Your task to perform on an android device: Open settings on Google Maps Image 0: 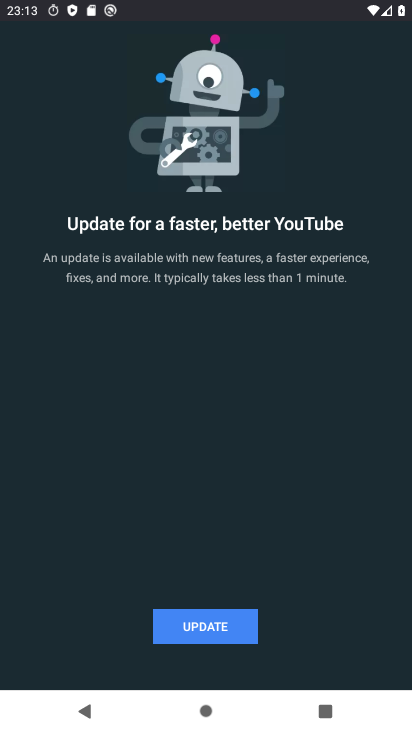
Step 0: press home button
Your task to perform on an android device: Open settings on Google Maps Image 1: 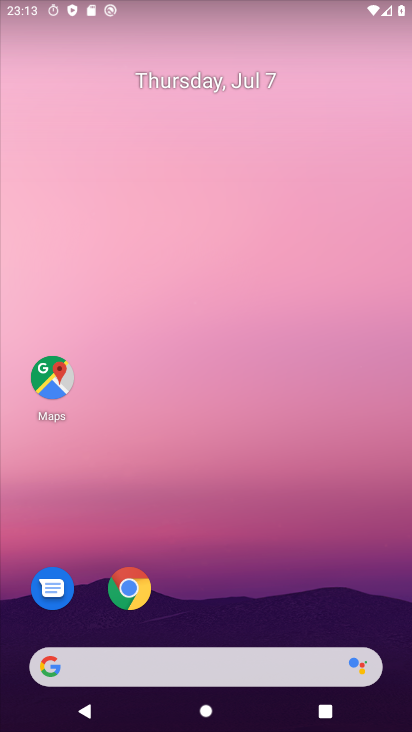
Step 1: drag from (298, 500) to (298, 97)
Your task to perform on an android device: Open settings on Google Maps Image 2: 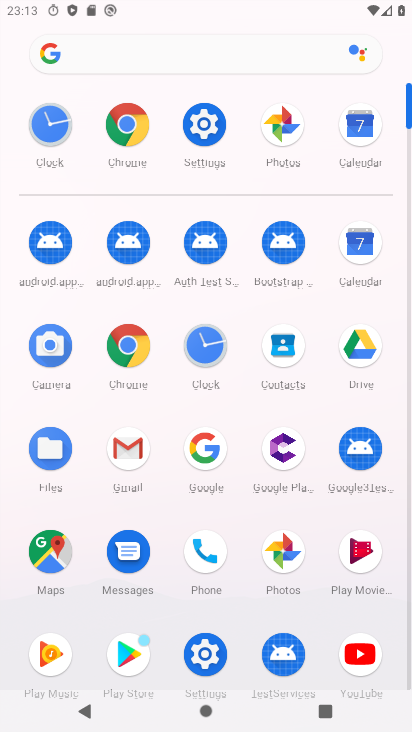
Step 2: click (40, 554)
Your task to perform on an android device: Open settings on Google Maps Image 3: 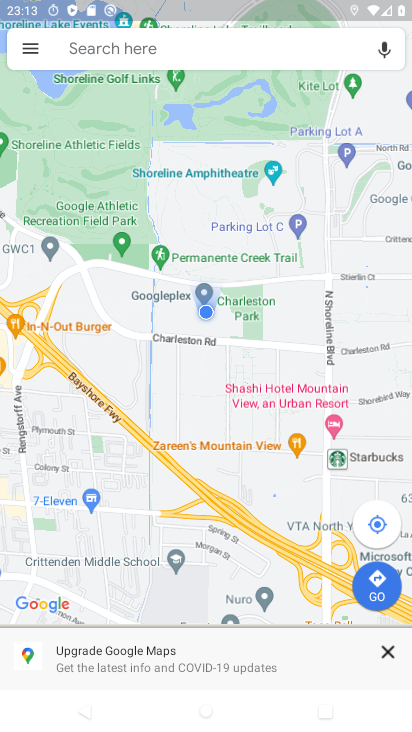
Step 3: click (25, 49)
Your task to perform on an android device: Open settings on Google Maps Image 4: 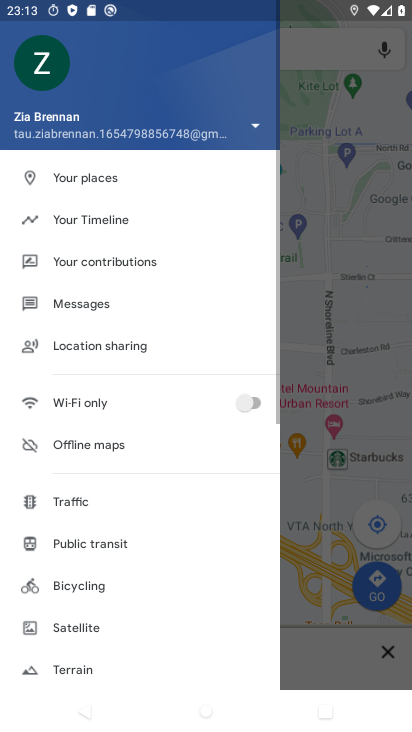
Step 4: drag from (112, 633) to (168, 186)
Your task to perform on an android device: Open settings on Google Maps Image 5: 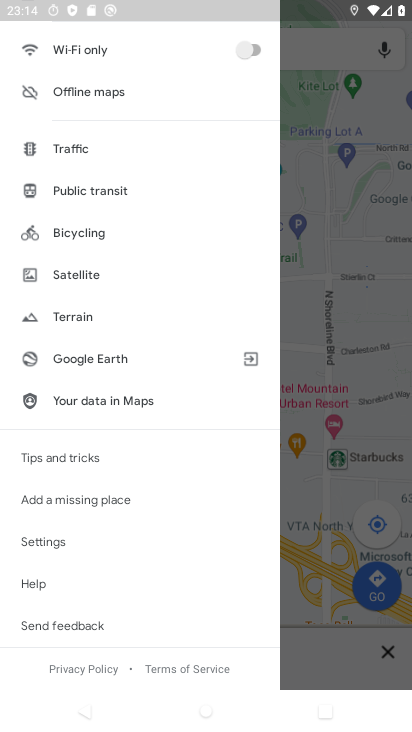
Step 5: click (46, 540)
Your task to perform on an android device: Open settings on Google Maps Image 6: 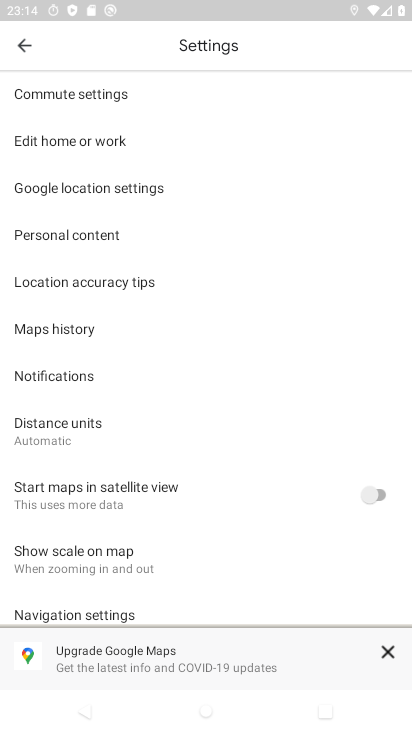
Step 6: task complete